Your task to perform on an android device: Open calendar and show me the fourth week of next month Image 0: 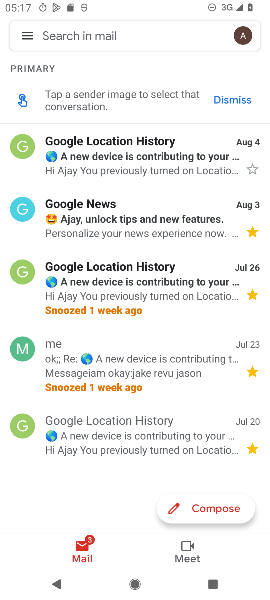
Step 0: press home button
Your task to perform on an android device: Open calendar and show me the fourth week of next month Image 1: 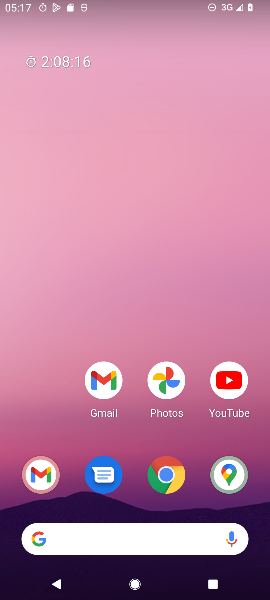
Step 1: drag from (67, 444) to (47, 241)
Your task to perform on an android device: Open calendar and show me the fourth week of next month Image 2: 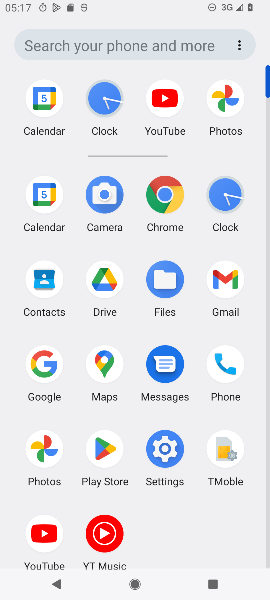
Step 2: click (49, 194)
Your task to perform on an android device: Open calendar and show me the fourth week of next month Image 3: 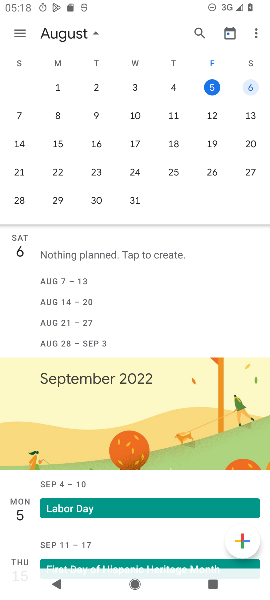
Step 3: drag from (256, 125) to (11, 132)
Your task to perform on an android device: Open calendar and show me the fourth week of next month Image 4: 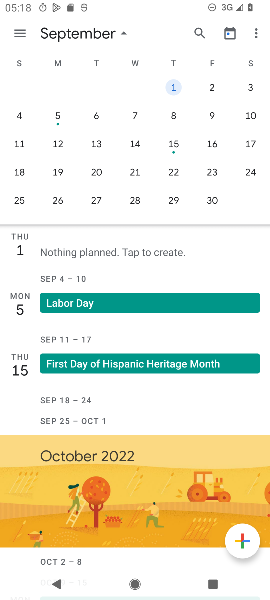
Step 4: click (52, 176)
Your task to perform on an android device: Open calendar and show me the fourth week of next month Image 5: 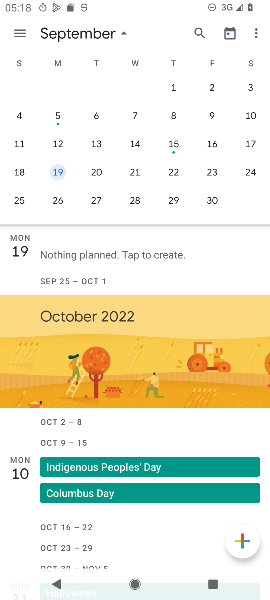
Step 5: task complete